Your task to perform on an android device: turn on sleep mode Image 0: 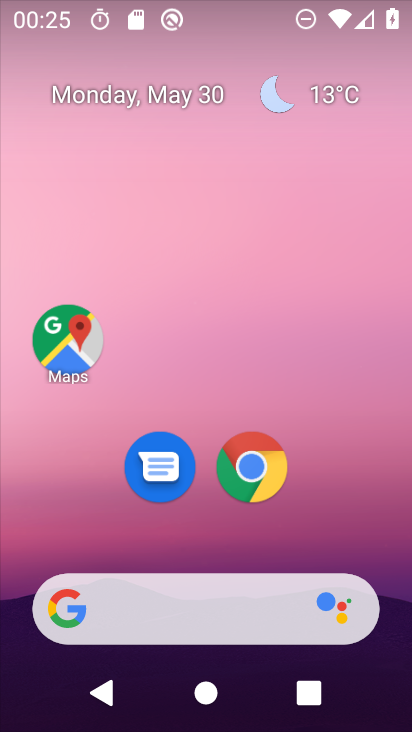
Step 0: drag from (214, 560) to (236, 162)
Your task to perform on an android device: turn on sleep mode Image 1: 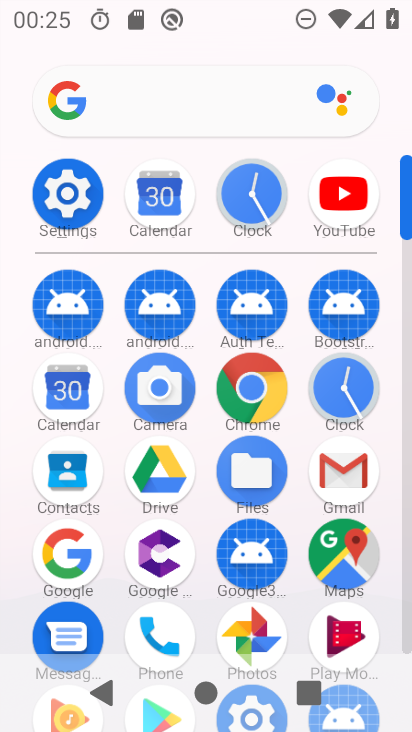
Step 1: click (85, 195)
Your task to perform on an android device: turn on sleep mode Image 2: 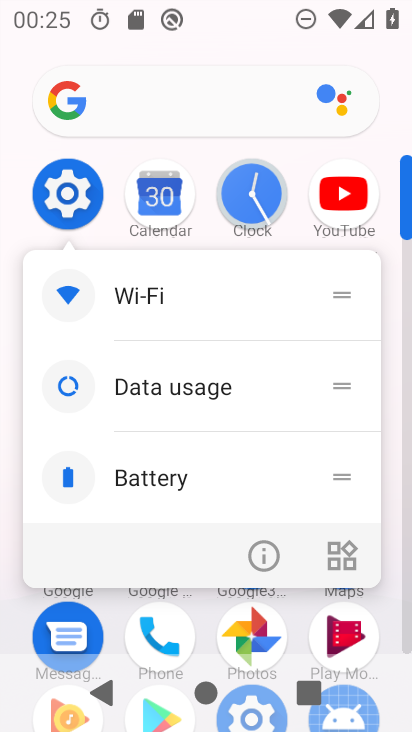
Step 2: click (64, 206)
Your task to perform on an android device: turn on sleep mode Image 3: 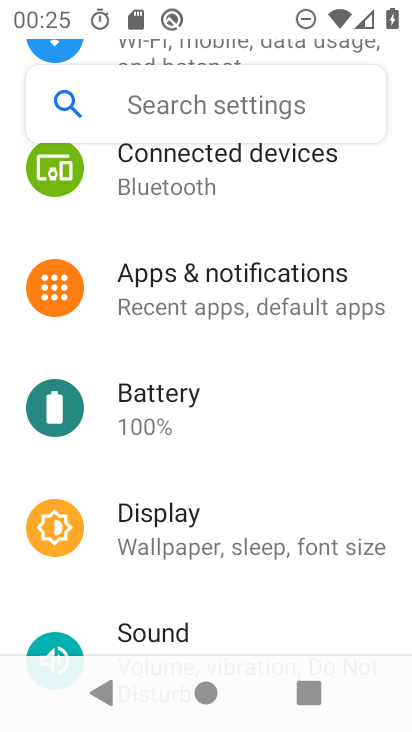
Step 3: click (179, 535)
Your task to perform on an android device: turn on sleep mode Image 4: 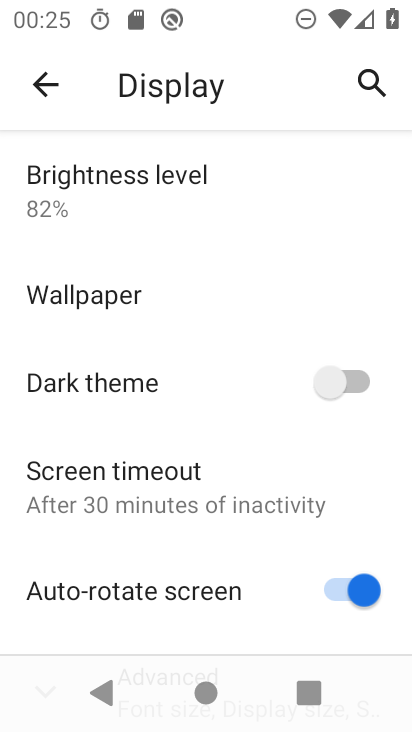
Step 4: drag from (161, 529) to (154, 589)
Your task to perform on an android device: turn on sleep mode Image 5: 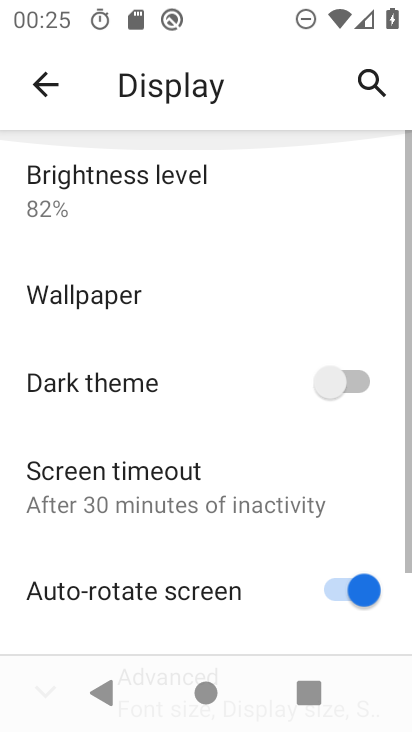
Step 5: drag from (167, 412) to (167, 557)
Your task to perform on an android device: turn on sleep mode Image 6: 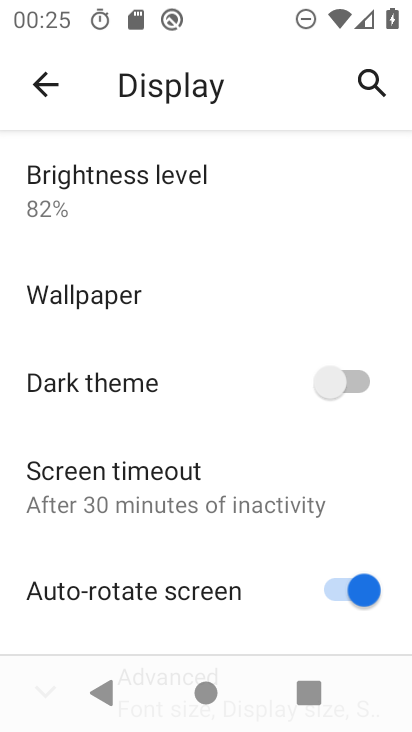
Step 6: click (160, 508)
Your task to perform on an android device: turn on sleep mode Image 7: 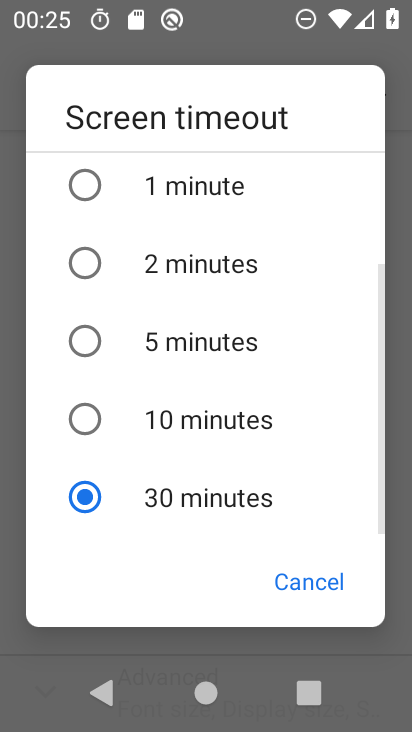
Step 7: click (169, 282)
Your task to perform on an android device: turn on sleep mode Image 8: 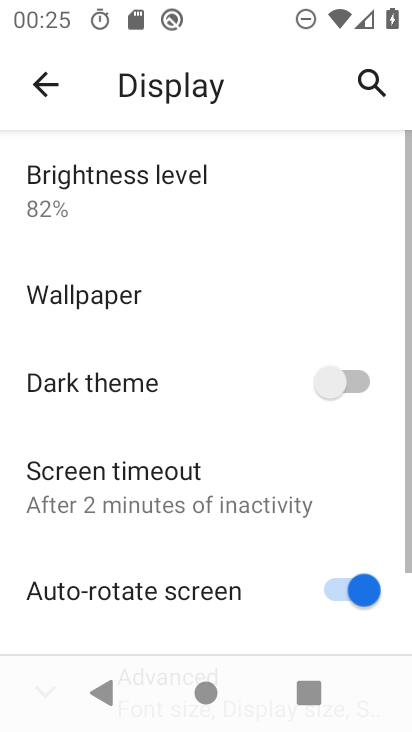
Step 8: task complete